Your task to perform on an android device: Open location settings Image 0: 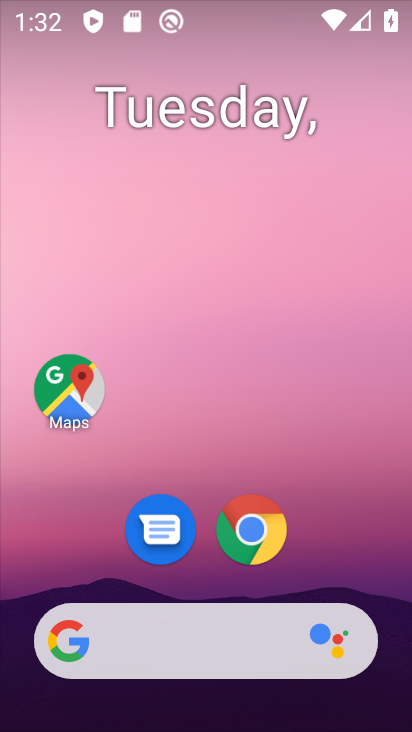
Step 0: drag from (388, 604) to (294, 94)
Your task to perform on an android device: Open location settings Image 1: 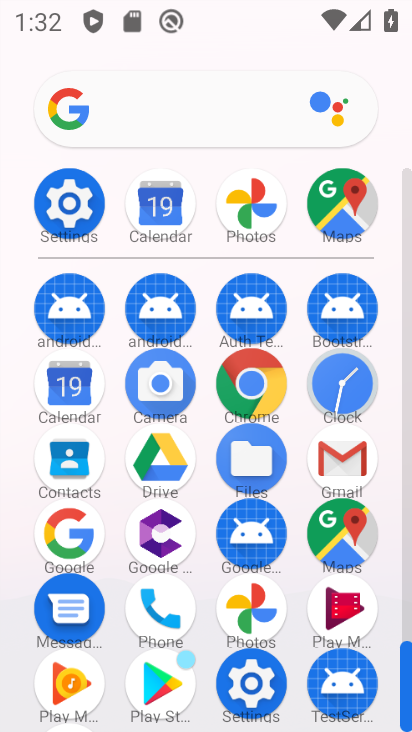
Step 1: click (259, 689)
Your task to perform on an android device: Open location settings Image 2: 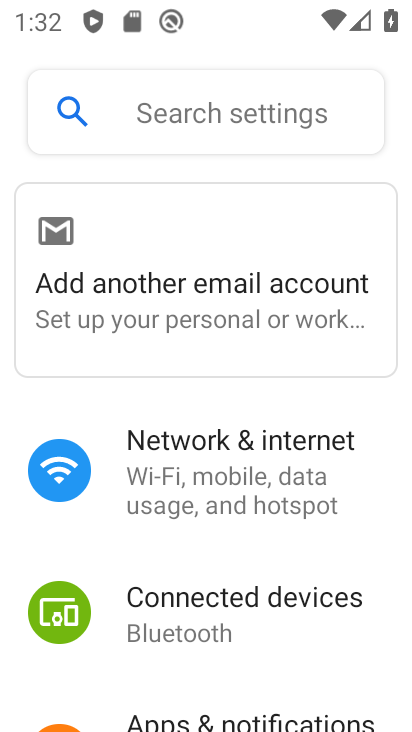
Step 2: drag from (226, 601) to (233, 102)
Your task to perform on an android device: Open location settings Image 3: 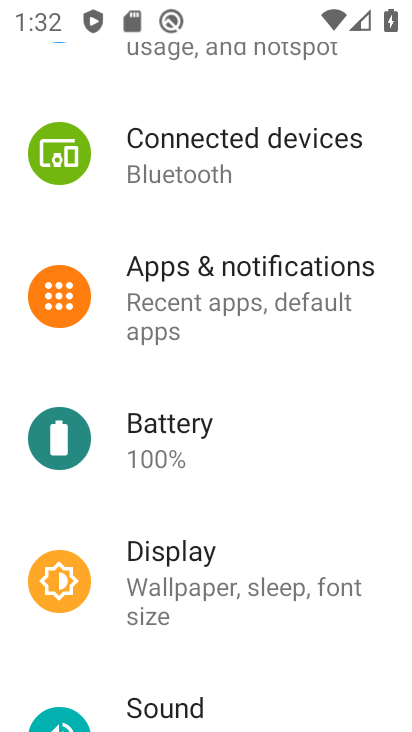
Step 3: drag from (209, 583) to (250, 125)
Your task to perform on an android device: Open location settings Image 4: 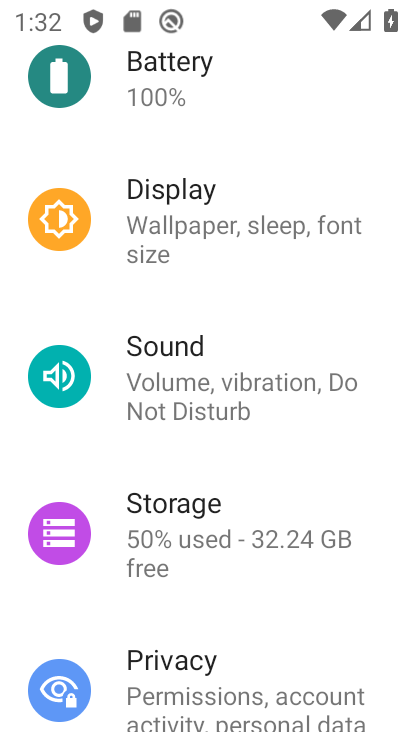
Step 4: drag from (213, 608) to (285, 179)
Your task to perform on an android device: Open location settings Image 5: 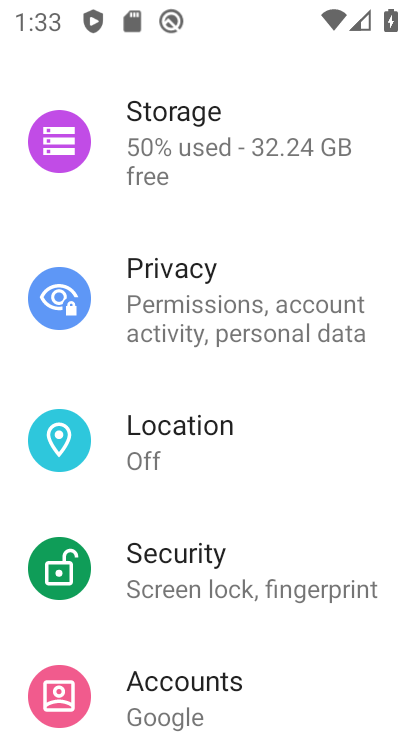
Step 5: click (178, 427)
Your task to perform on an android device: Open location settings Image 6: 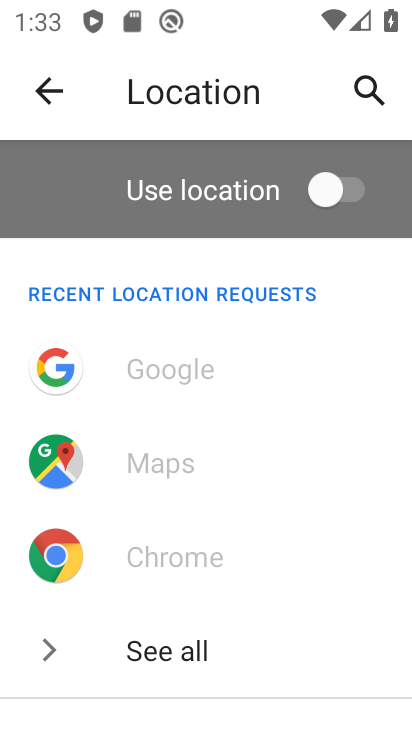
Step 6: task complete